Your task to perform on an android device: toggle translation in the chrome app Image 0: 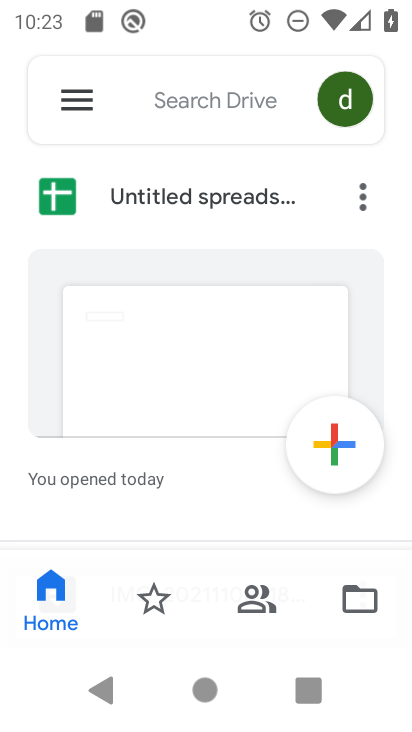
Step 0: click (139, 680)
Your task to perform on an android device: toggle translation in the chrome app Image 1: 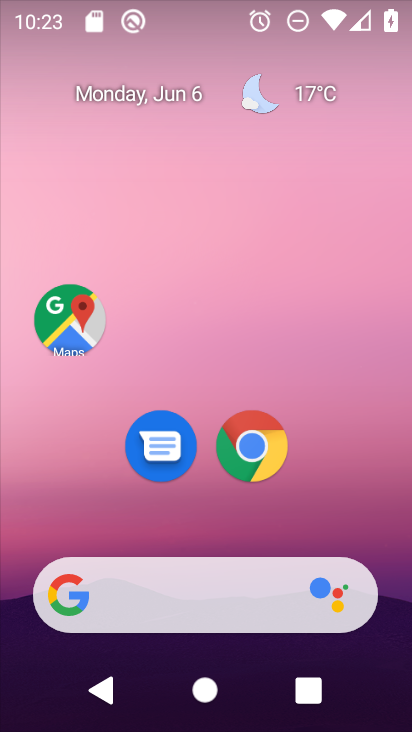
Step 1: press home button
Your task to perform on an android device: toggle translation in the chrome app Image 2: 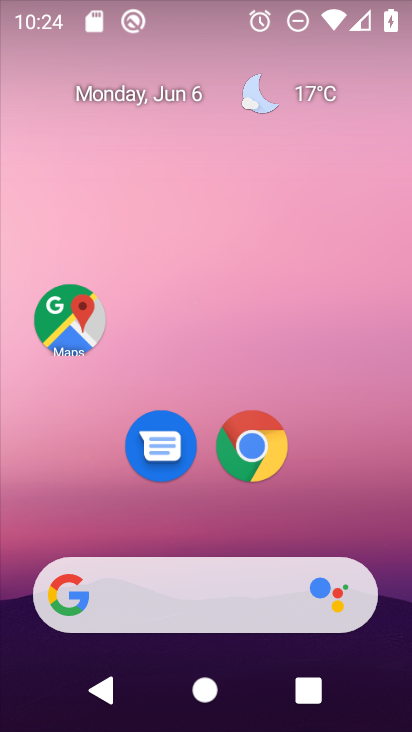
Step 2: click (247, 443)
Your task to perform on an android device: toggle translation in the chrome app Image 3: 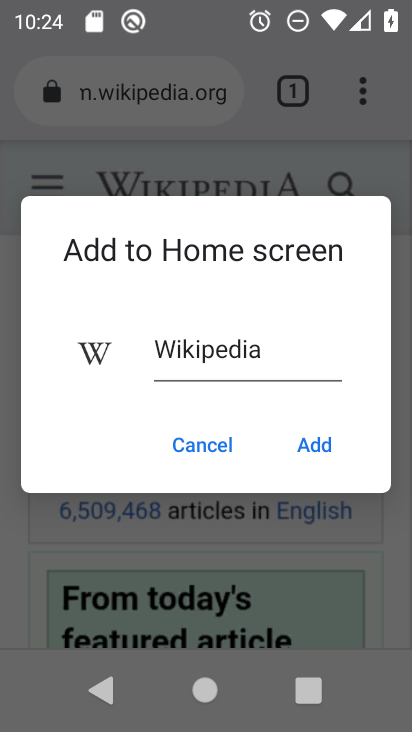
Step 3: click (192, 439)
Your task to perform on an android device: toggle translation in the chrome app Image 4: 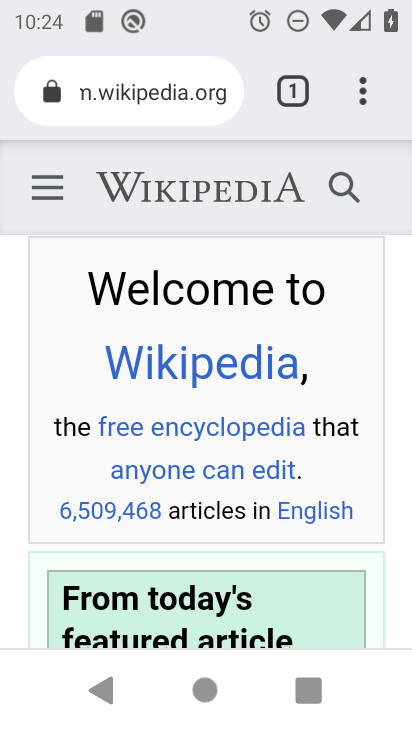
Step 4: click (366, 93)
Your task to perform on an android device: toggle translation in the chrome app Image 5: 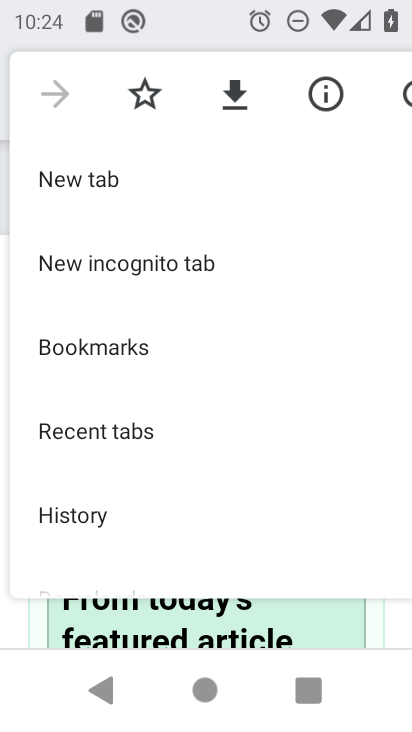
Step 5: drag from (124, 505) to (231, 30)
Your task to perform on an android device: toggle translation in the chrome app Image 6: 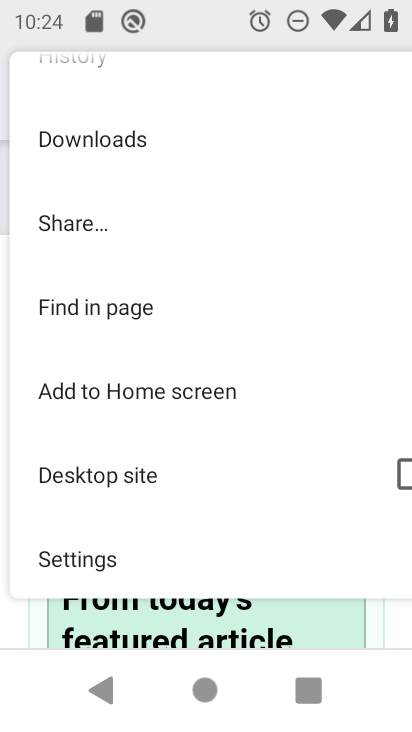
Step 6: click (98, 546)
Your task to perform on an android device: toggle translation in the chrome app Image 7: 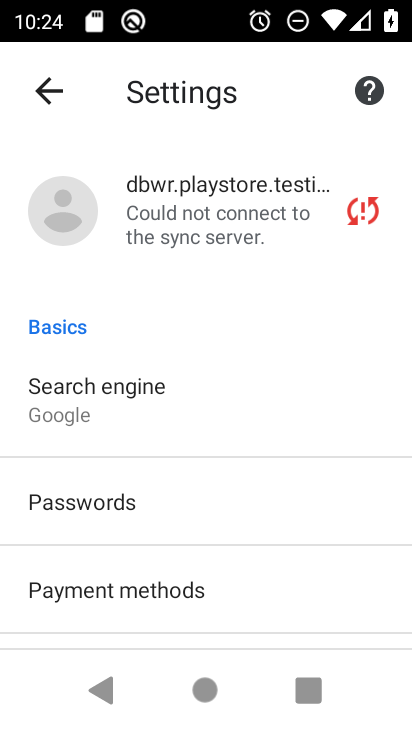
Step 7: drag from (98, 546) to (316, 63)
Your task to perform on an android device: toggle translation in the chrome app Image 8: 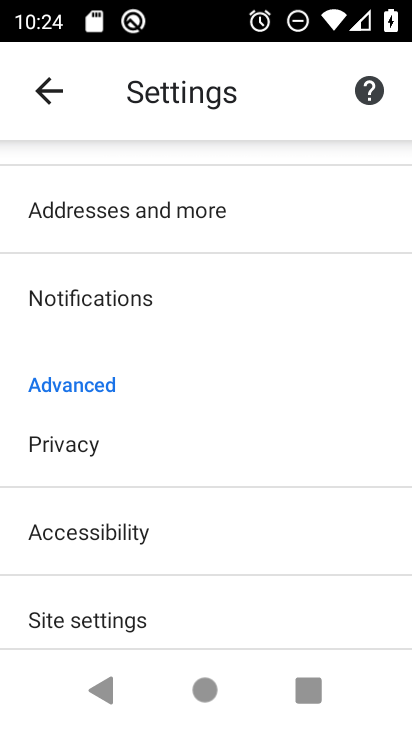
Step 8: drag from (106, 573) to (185, 253)
Your task to perform on an android device: toggle translation in the chrome app Image 9: 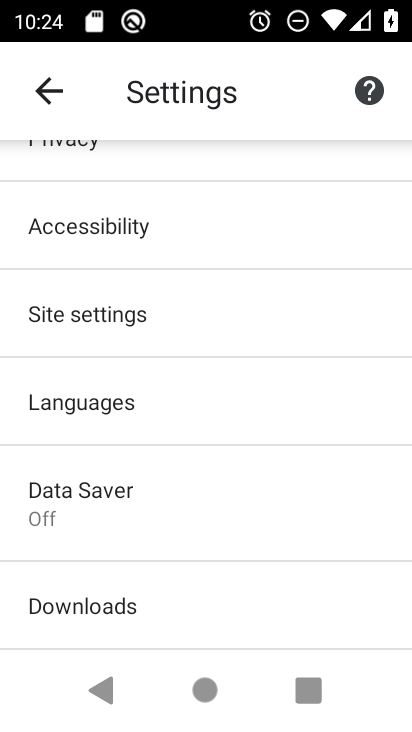
Step 9: click (111, 418)
Your task to perform on an android device: toggle translation in the chrome app Image 10: 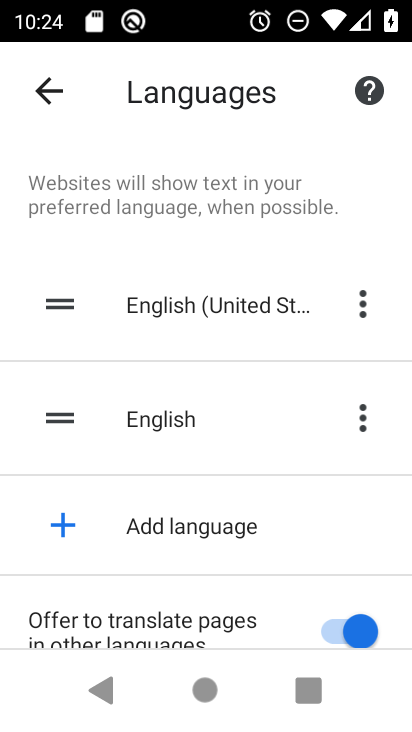
Step 10: click (362, 629)
Your task to perform on an android device: toggle translation in the chrome app Image 11: 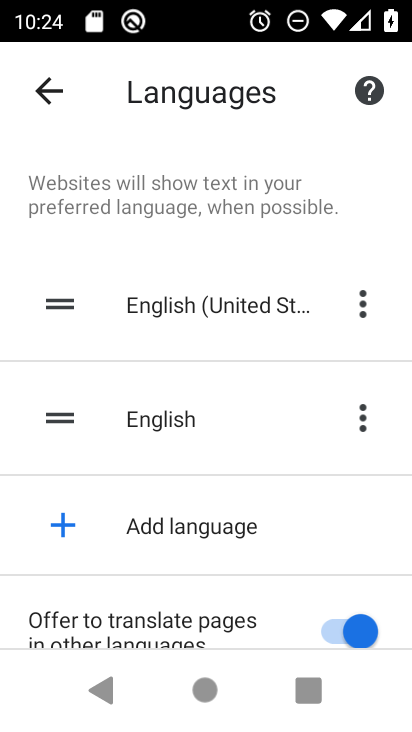
Step 11: click (362, 629)
Your task to perform on an android device: toggle translation in the chrome app Image 12: 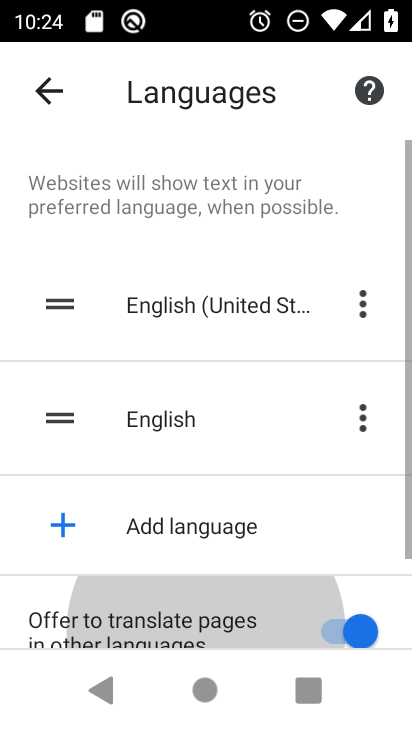
Step 12: click (362, 629)
Your task to perform on an android device: toggle translation in the chrome app Image 13: 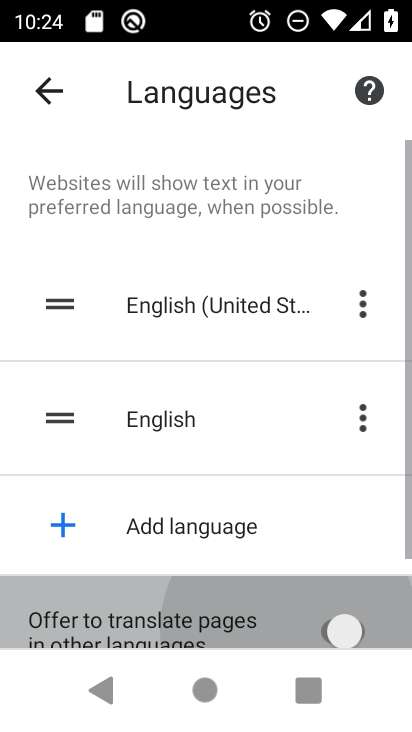
Step 13: click (362, 629)
Your task to perform on an android device: toggle translation in the chrome app Image 14: 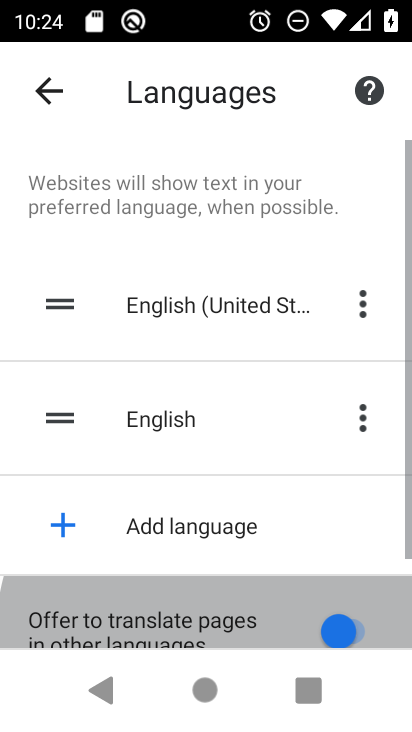
Step 14: click (362, 629)
Your task to perform on an android device: toggle translation in the chrome app Image 15: 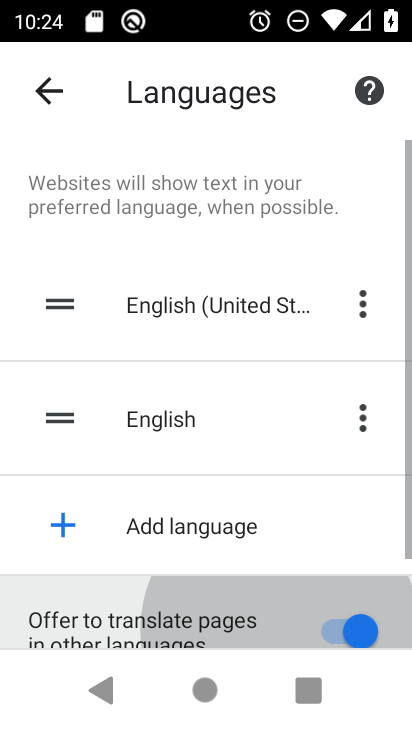
Step 15: click (362, 629)
Your task to perform on an android device: toggle translation in the chrome app Image 16: 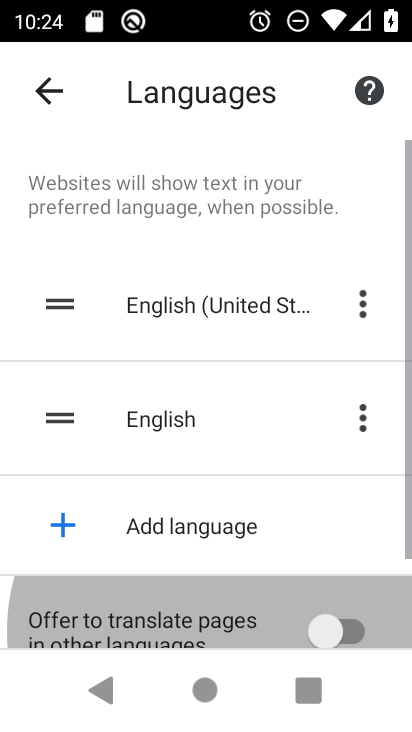
Step 16: click (362, 629)
Your task to perform on an android device: toggle translation in the chrome app Image 17: 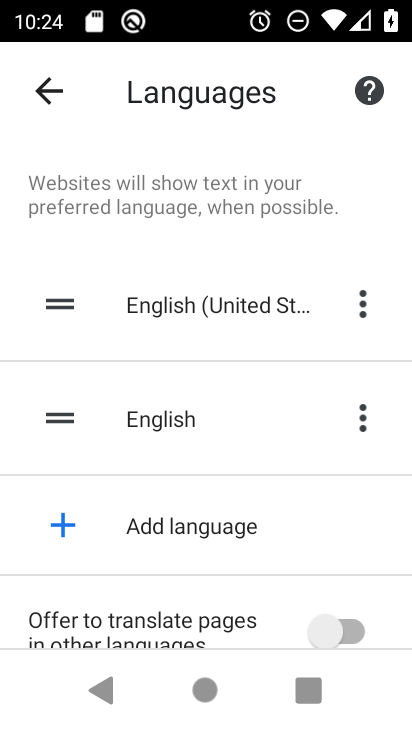
Step 17: task complete